Your task to perform on an android device: allow cookies in the chrome app Image 0: 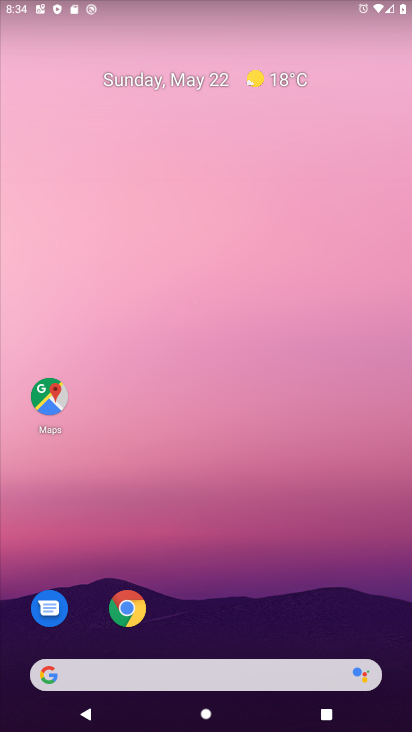
Step 0: click (128, 607)
Your task to perform on an android device: allow cookies in the chrome app Image 1: 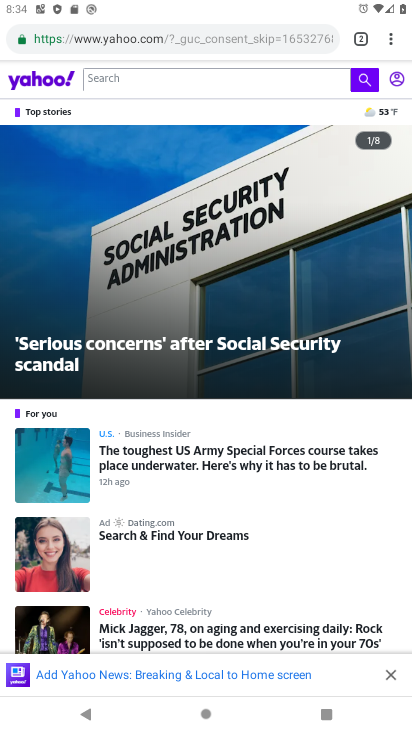
Step 1: click (391, 43)
Your task to perform on an android device: allow cookies in the chrome app Image 2: 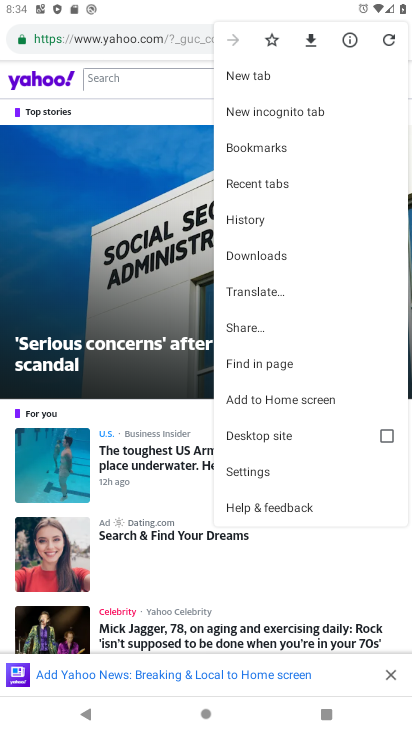
Step 2: click (241, 470)
Your task to perform on an android device: allow cookies in the chrome app Image 3: 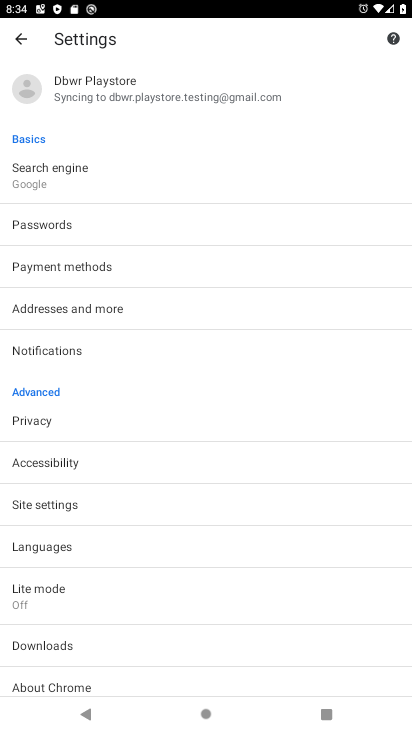
Step 3: click (98, 502)
Your task to perform on an android device: allow cookies in the chrome app Image 4: 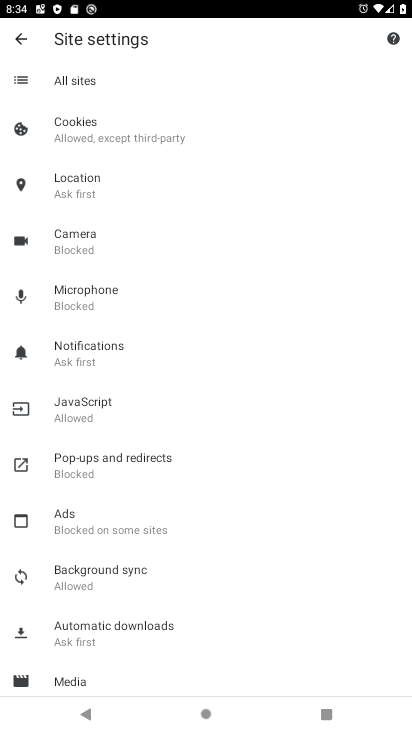
Step 4: click (96, 130)
Your task to perform on an android device: allow cookies in the chrome app Image 5: 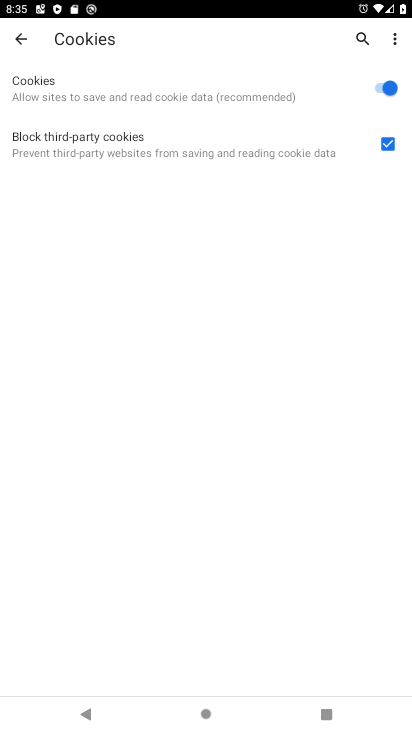
Step 5: task complete